Your task to perform on an android device: snooze an email in the gmail app Image 0: 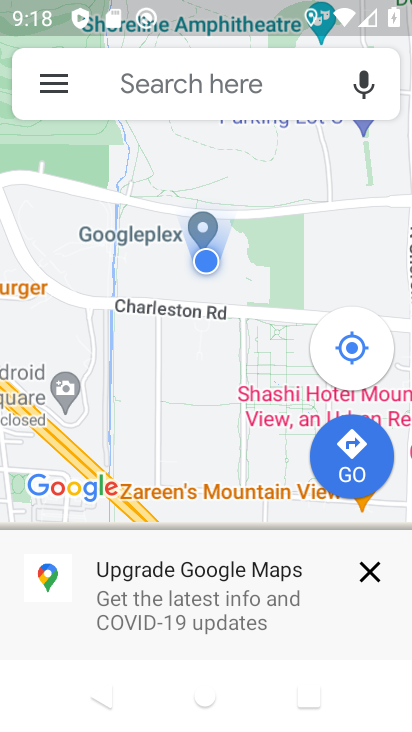
Step 0: press home button
Your task to perform on an android device: snooze an email in the gmail app Image 1: 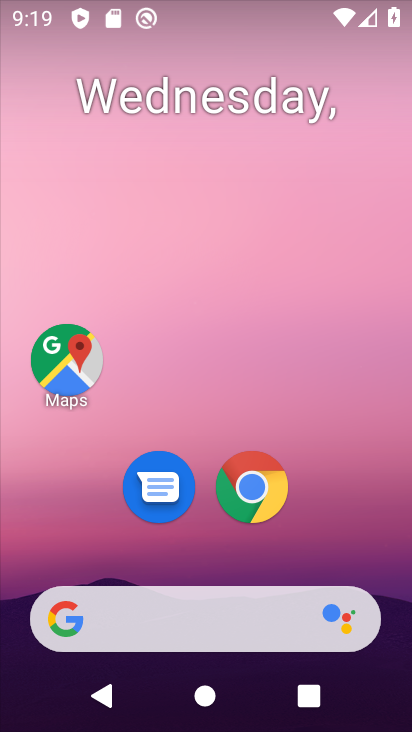
Step 1: drag from (196, 549) to (251, 154)
Your task to perform on an android device: snooze an email in the gmail app Image 2: 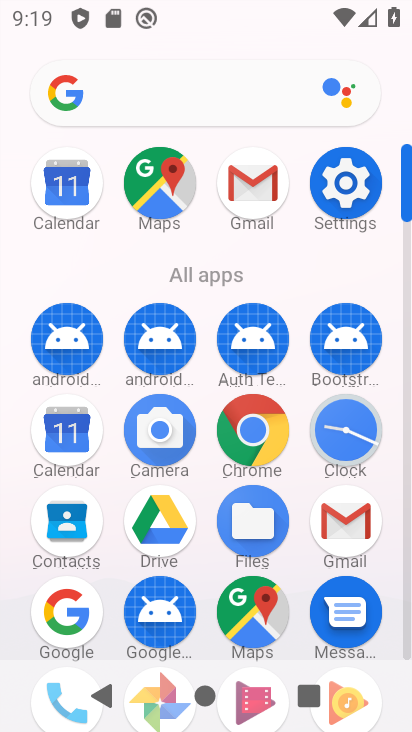
Step 2: click (253, 166)
Your task to perform on an android device: snooze an email in the gmail app Image 3: 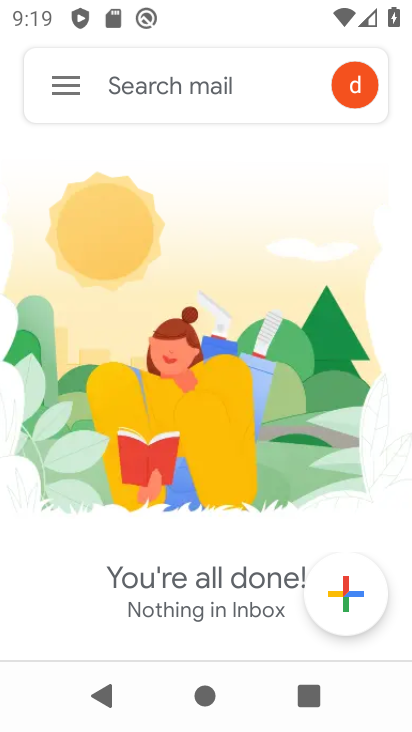
Step 3: click (52, 89)
Your task to perform on an android device: snooze an email in the gmail app Image 4: 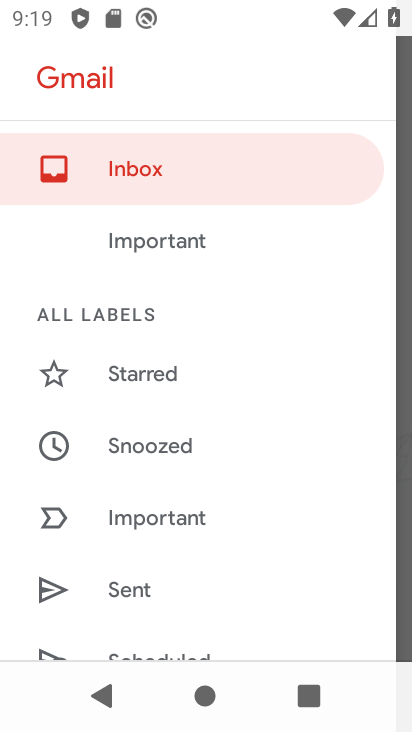
Step 4: drag from (163, 580) to (215, 300)
Your task to perform on an android device: snooze an email in the gmail app Image 5: 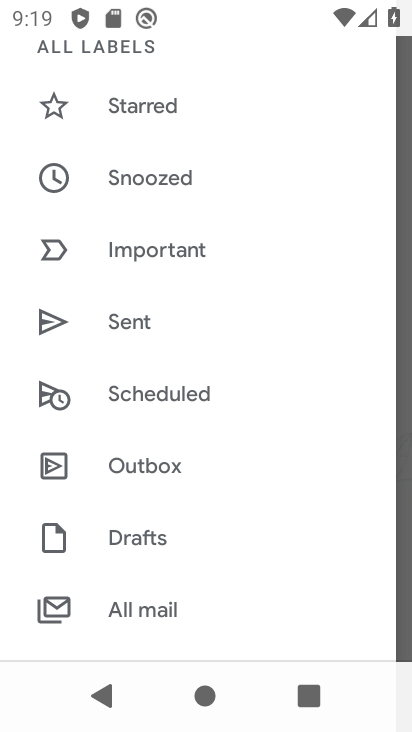
Step 5: click (186, 616)
Your task to perform on an android device: snooze an email in the gmail app Image 6: 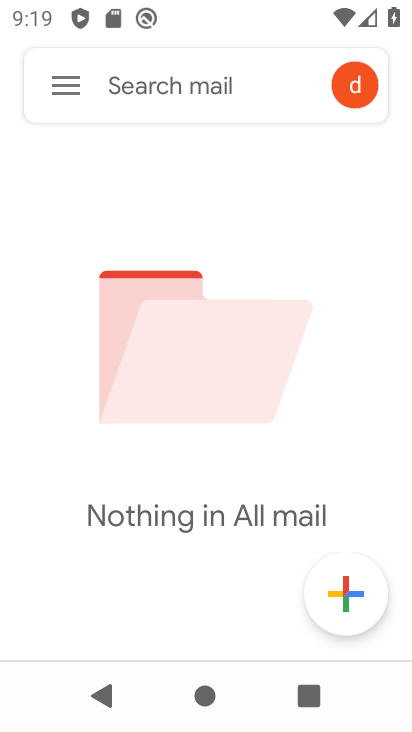
Step 6: task complete